Your task to perform on an android device: Open privacy settings Image 0: 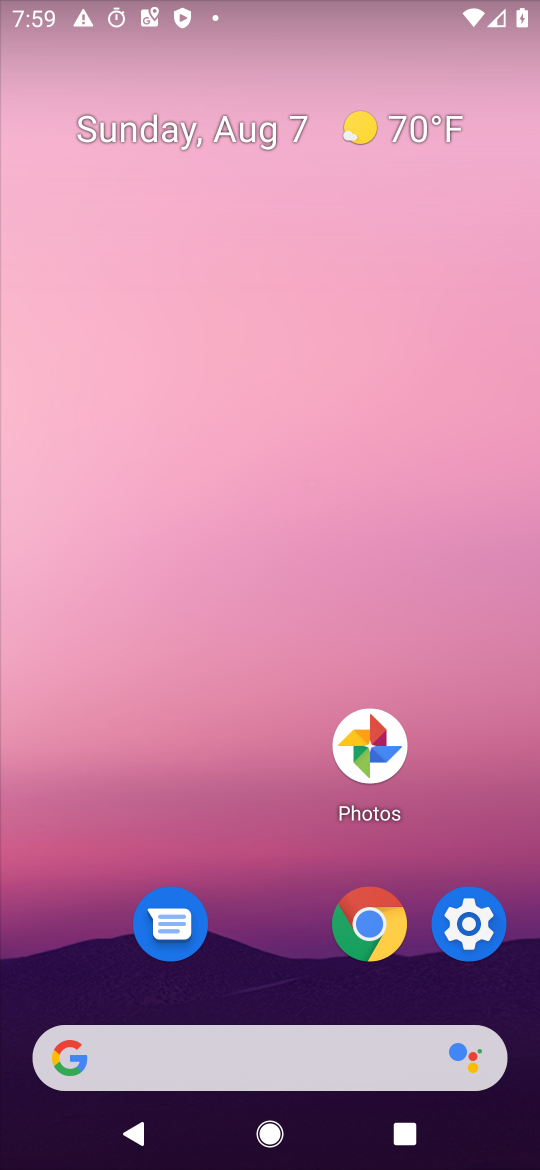
Step 0: drag from (298, 946) to (131, 178)
Your task to perform on an android device: Open privacy settings Image 1: 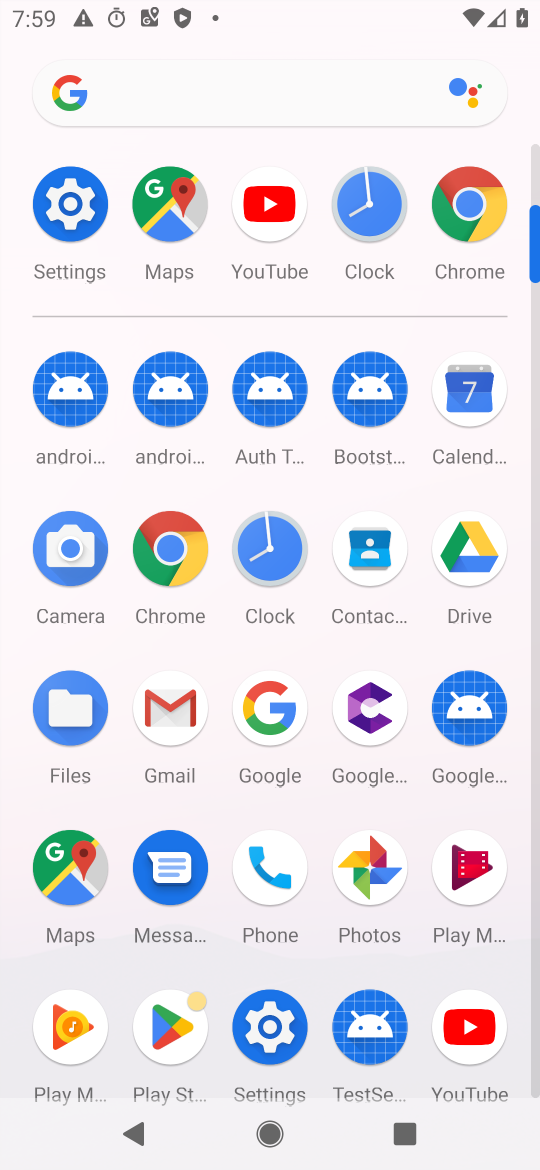
Step 1: click (69, 197)
Your task to perform on an android device: Open privacy settings Image 2: 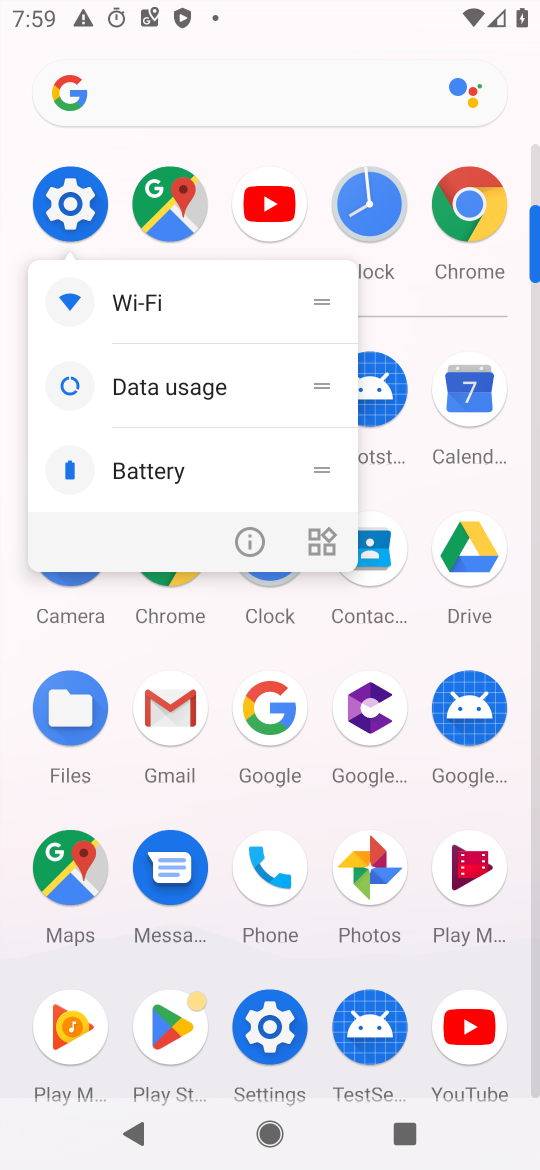
Step 2: click (71, 202)
Your task to perform on an android device: Open privacy settings Image 3: 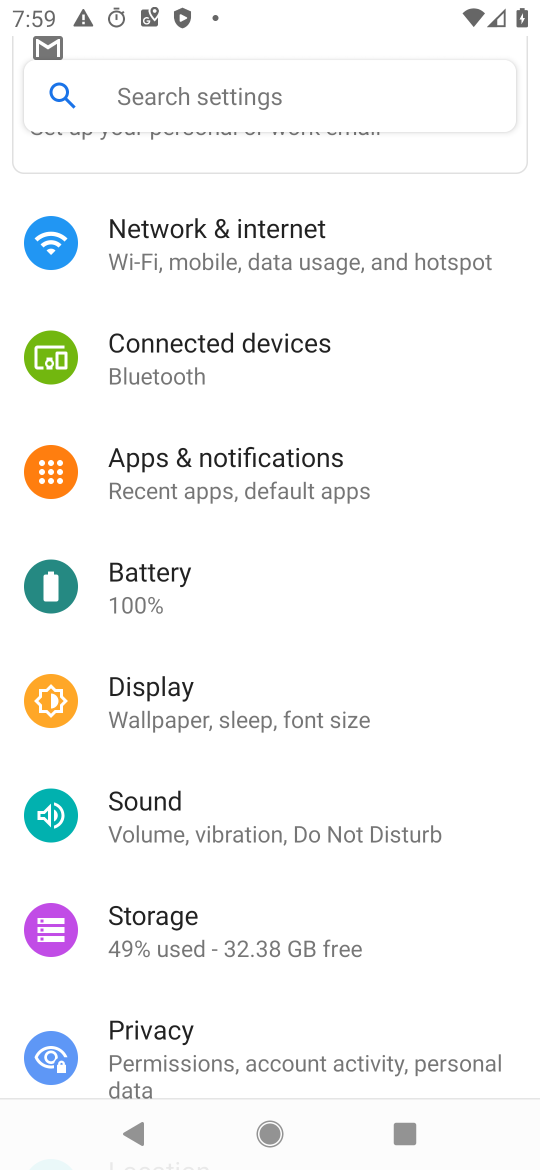
Step 3: click (151, 1035)
Your task to perform on an android device: Open privacy settings Image 4: 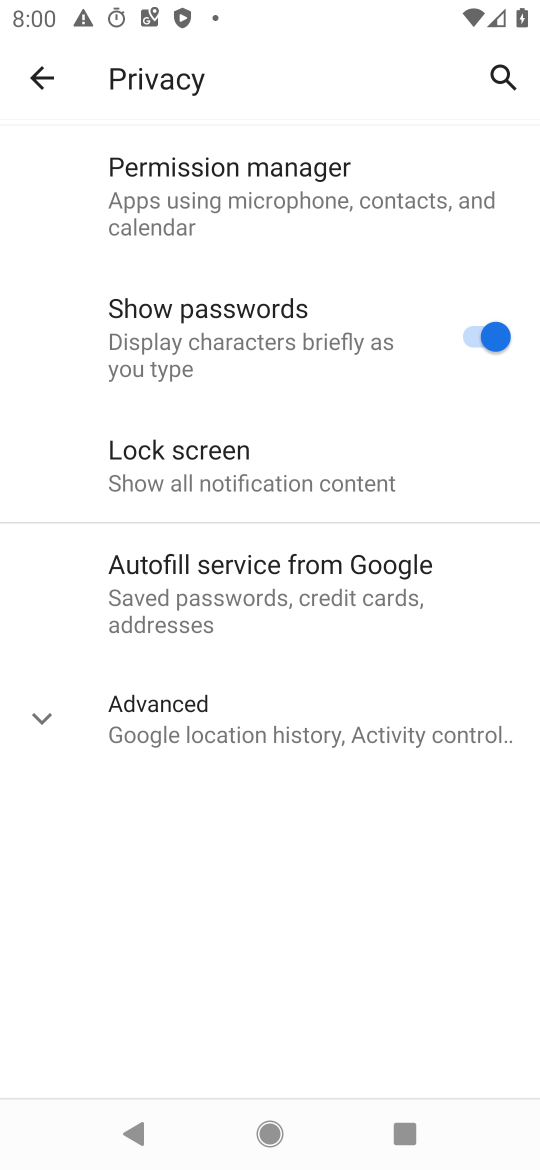
Step 4: task complete